Your task to perform on an android device: Go to wifi settings Image 0: 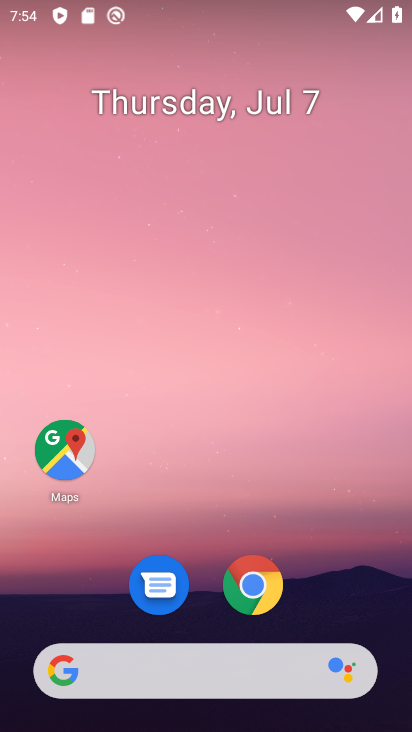
Step 0: drag from (325, 532) to (320, 27)
Your task to perform on an android device: Go to wifi settings Image 1: 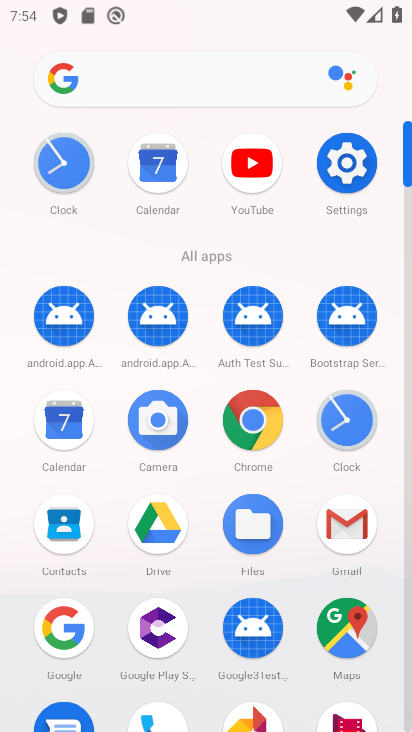
Step 1: click (341, 164)
Your task to perform on an android device: Go to wifi settings Image 2: 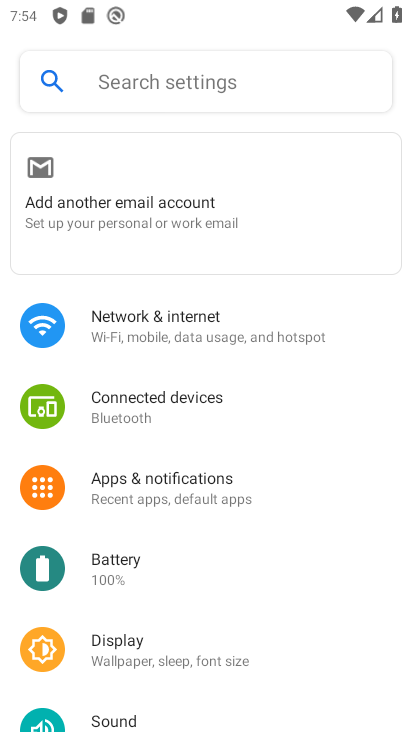
Step 2: click (204, 338)
Your task to perform on an android device: Go to wifi settings Image 3: 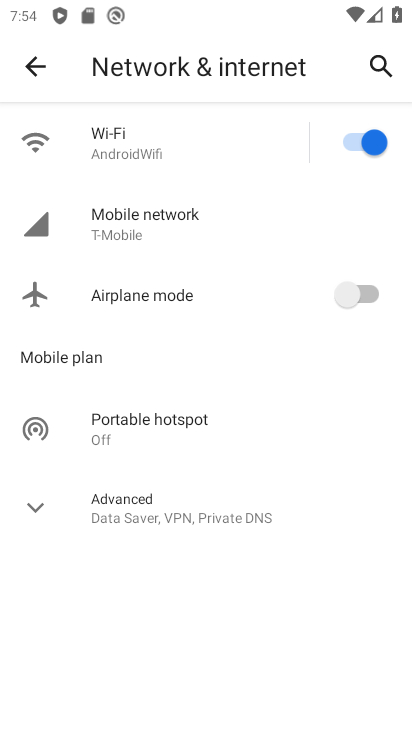
Step 3: click (158, 141)
Your task to perform on an android device: Go to wifi settings Image 4: 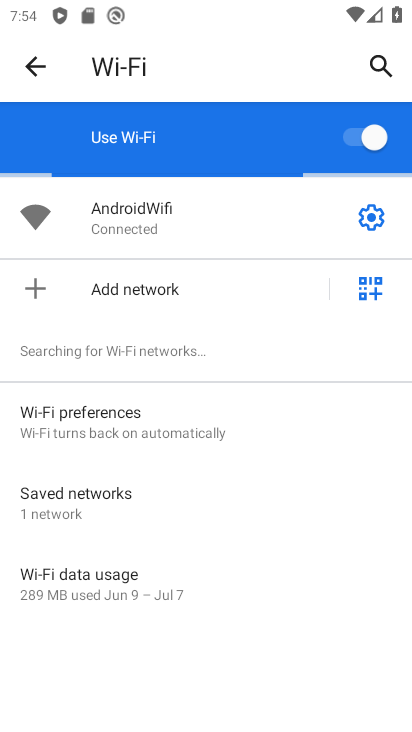
Step 4: task complete